Your task to perform on an android device: Show me productivity apps on the Play Store Image 0: 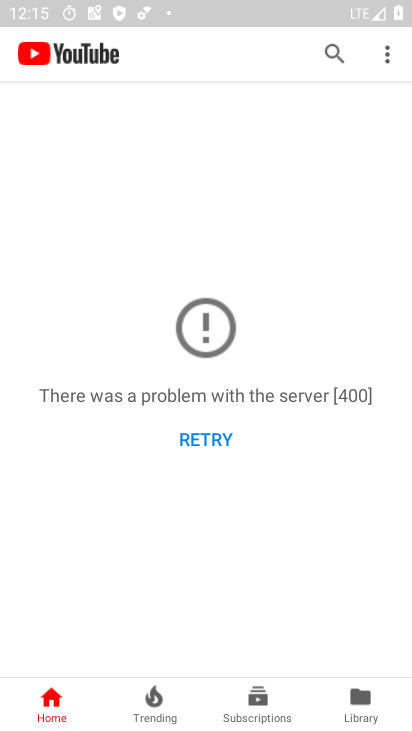
Step 0: press home button
Your task to perform on an android device: Show me productivity apps on the Play Store Image 1: 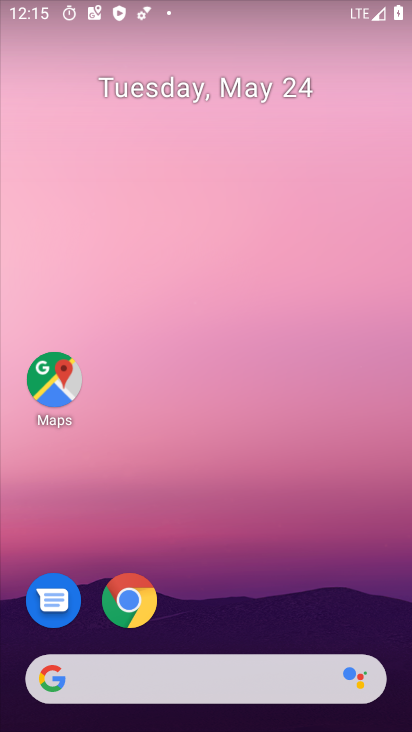
Step 1: drag from (288, 570) to (211, 113)
Your task to perform on an android device: Show me productivity apps on the Play Store Image 2: 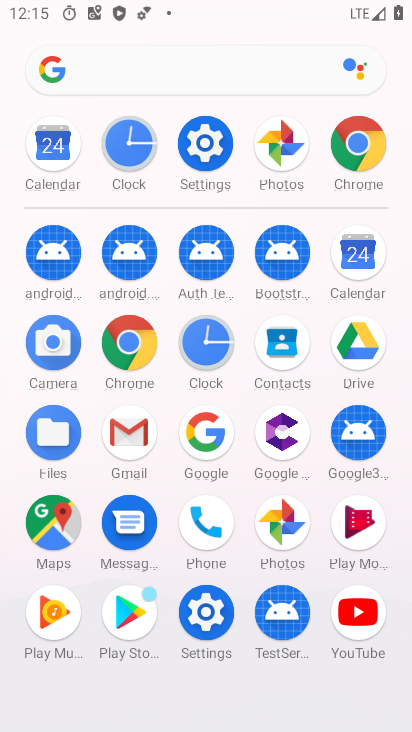
Step 2: click (122, 618)
Your task to perform on an android device: Show me productivity apps on the Play Store Image 3: 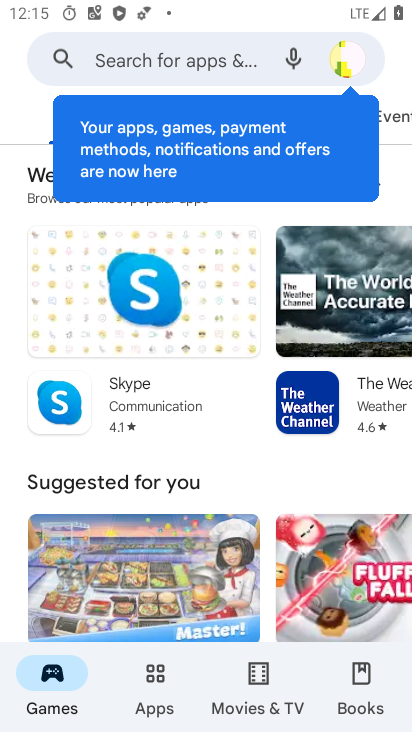
Step 3: click (164, 672)
Your task to perform on an android device: Show me productivity apps on the Play Store Image 4: 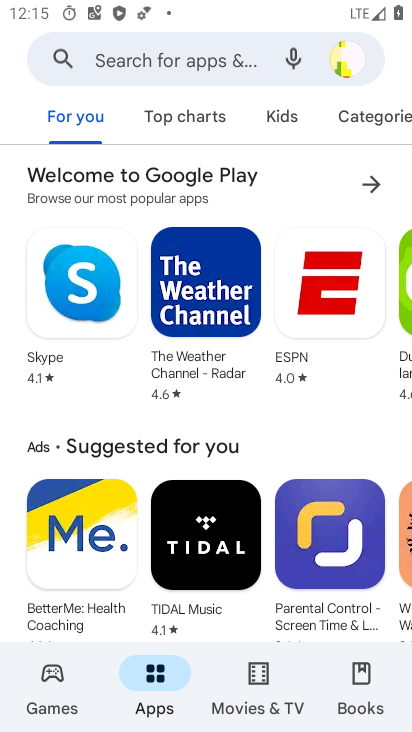
Step 4: task complete